Your task to perform on an android device: turn off smart reply in the gmail app Image 0: 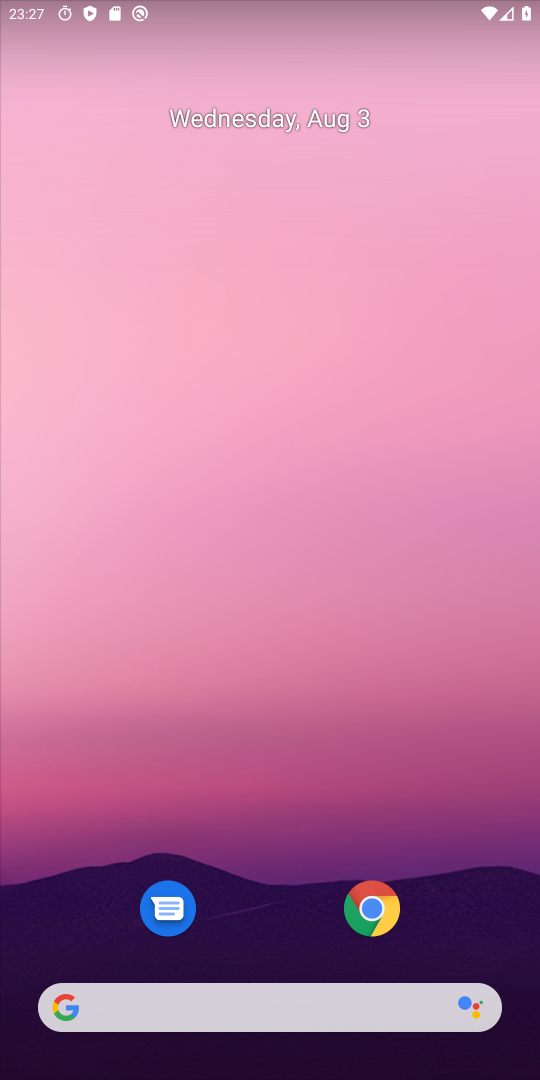
Step 0: drag from (353, 1027) to (129, 400)
Your task to perform on an android device: turn off smart reply in the gmail app Image 1: 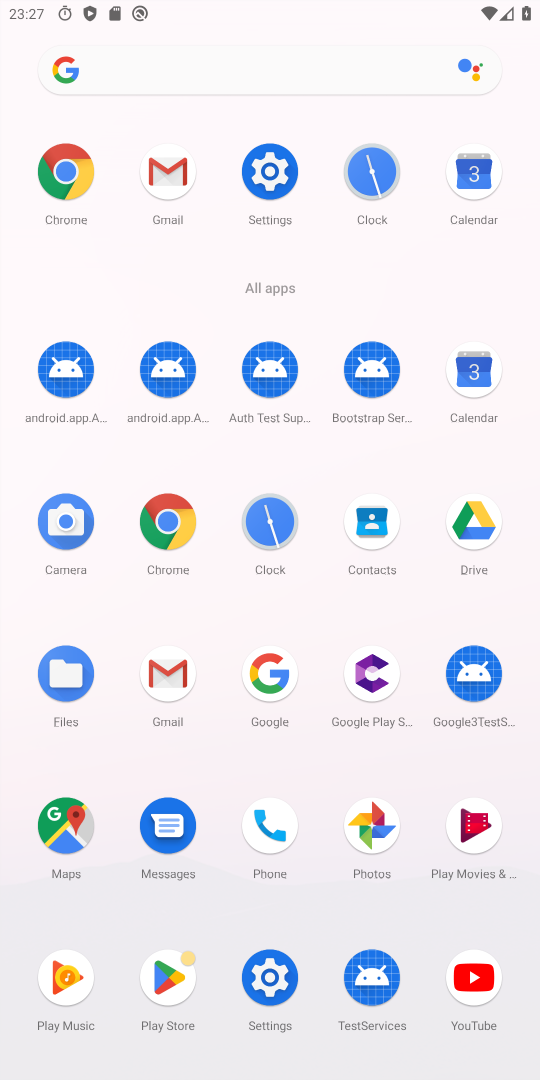
Step 1: click (163, 170)
Your task to perform on an android device: turn off smart reply in the gmail app Image 2: 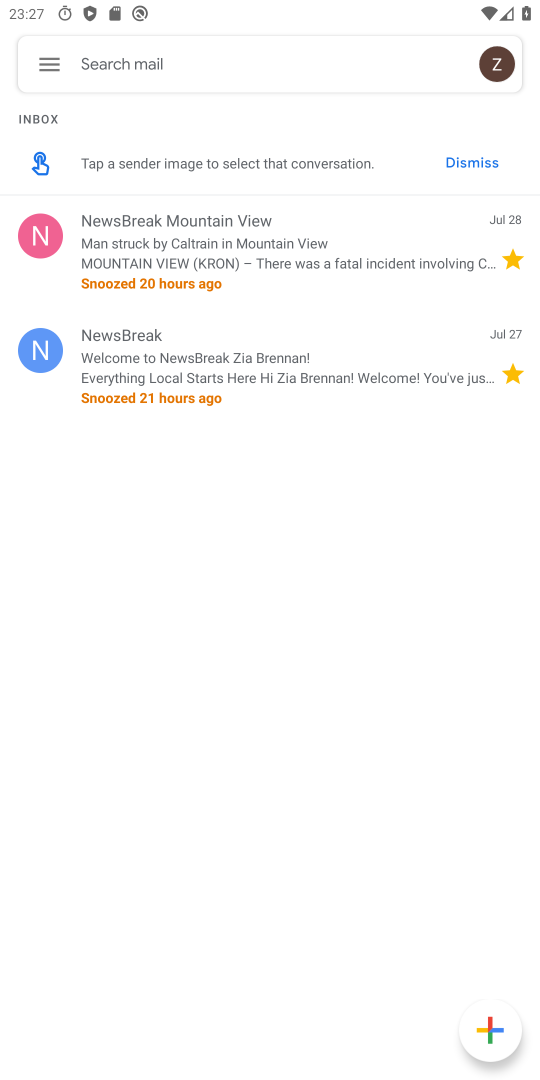
Step 2: click (45, 66)
Your task to perform on an android device: turn off smart reply in the gmail app Image 3: 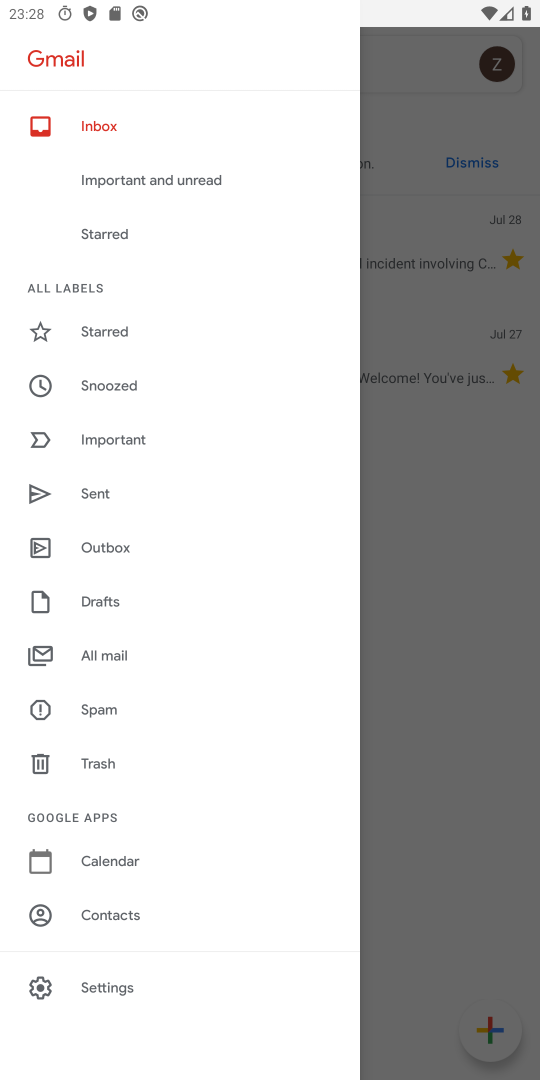
Step 3: click (107, 995)
Your task to perform on an android device: turn off smart reply in the gmail app Image 4: 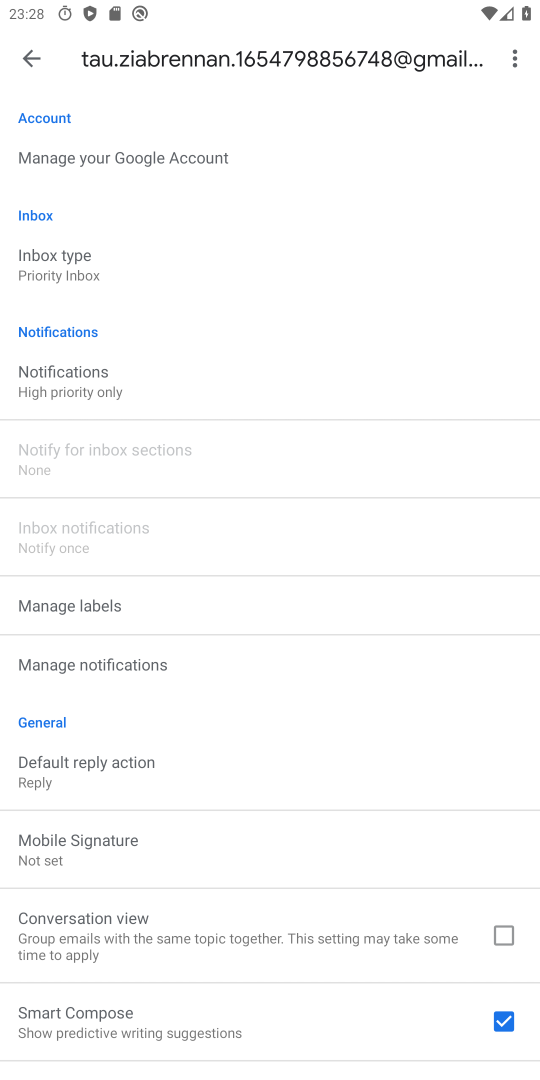
Step 4: click (505, 1012)
Your task to perform on an android device: turn off smart reply in the gmail app Image 5: 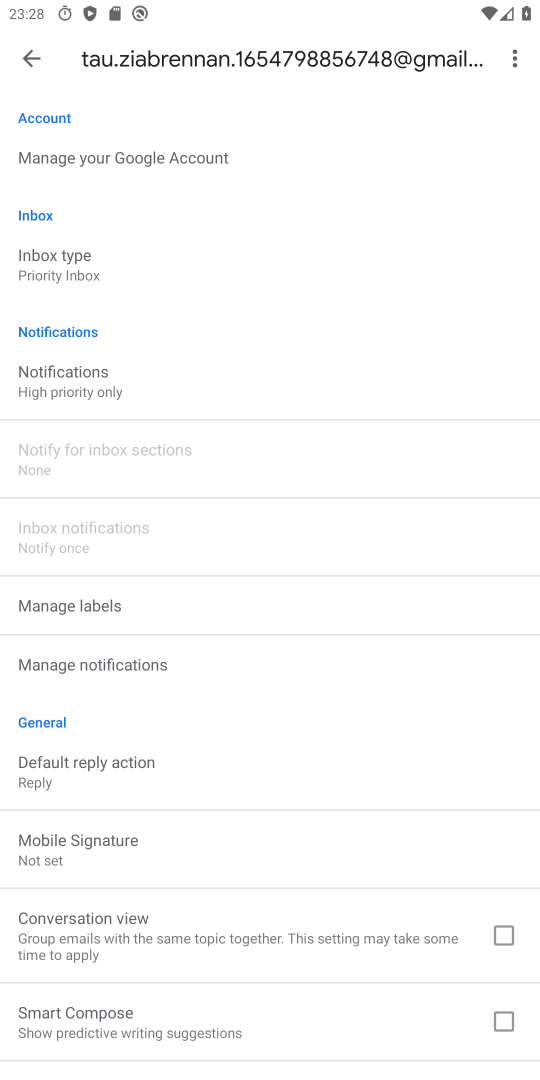
Step 5: task complete